Your task to perform on an android device: Search for vegetarian restaurants on Maps Image 0: 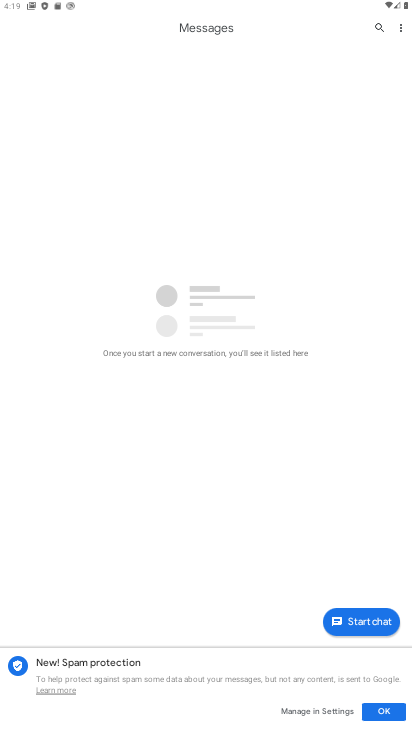
Step 0: press home button
Your task to perform on an android device: Search for vegetarian restaurants on Maps Image 1: 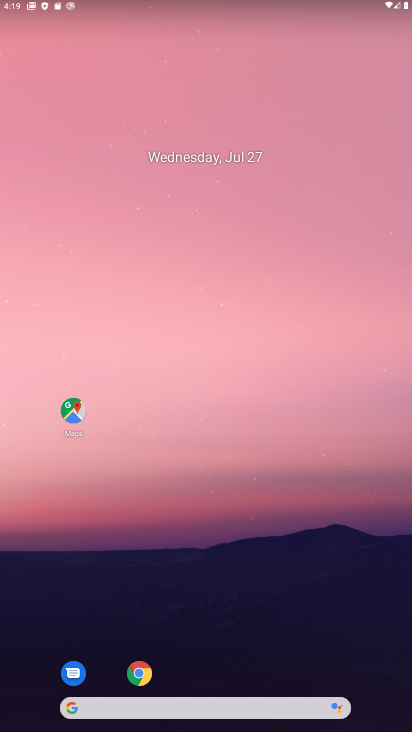
Step 1: click (73, 407)
Your task to perform on an android device: Search for vegetarian restaurants on Maps Image 2: 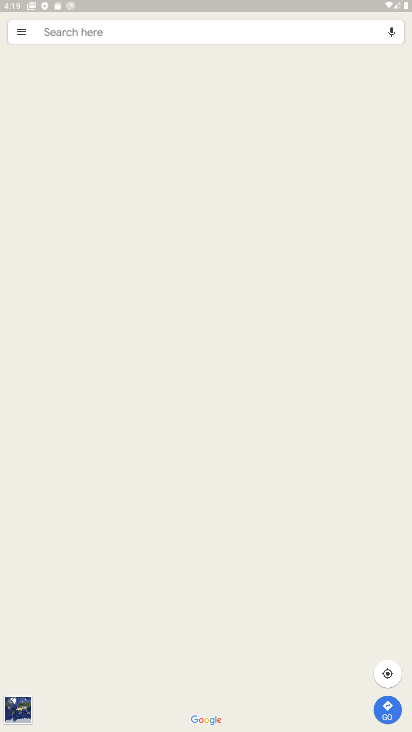
Step 2: click (190, 32)
Your task to perform on an android device: Search for vegetarian restaurants on Maps Image 3: 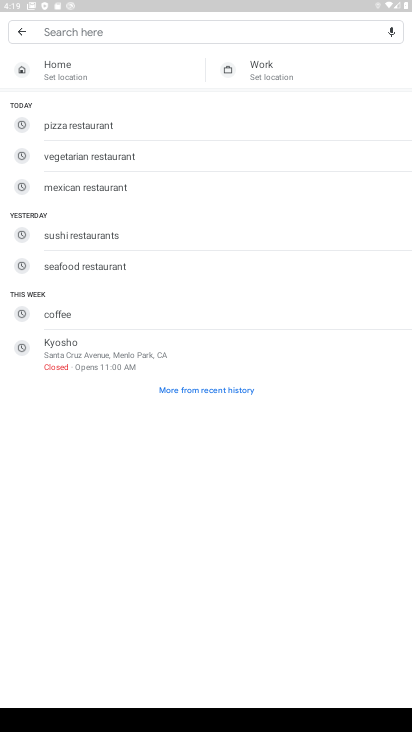
Step 3: type "vegetarian restaurants"
Your task to perform on an android device: Search for vegetarian restaurants on Maps Image 4: 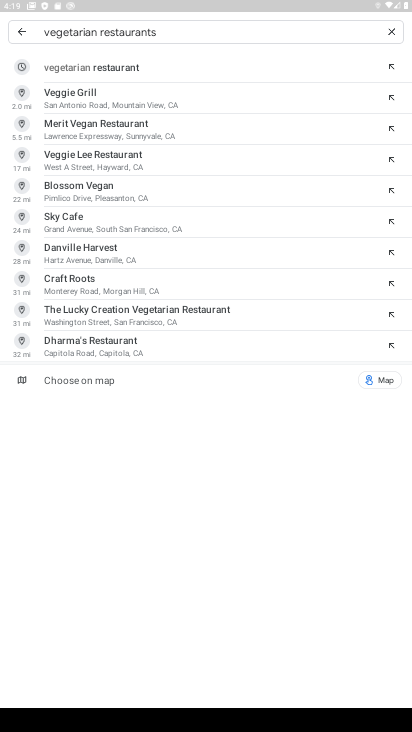
Step 4: click (125, 67)
Your task to perform on an android device: Search for vegetarian restaurants on Maps Image 5: 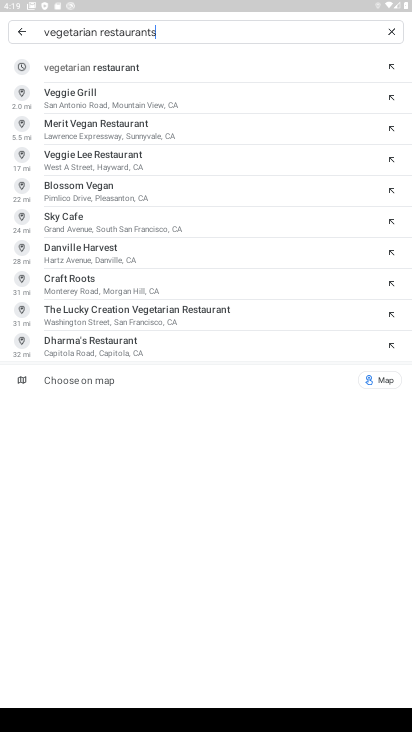
Step 5: click (125, 67)
Your task to perform on an android device: Search for vegetarian restaurants on Maps Image 6: 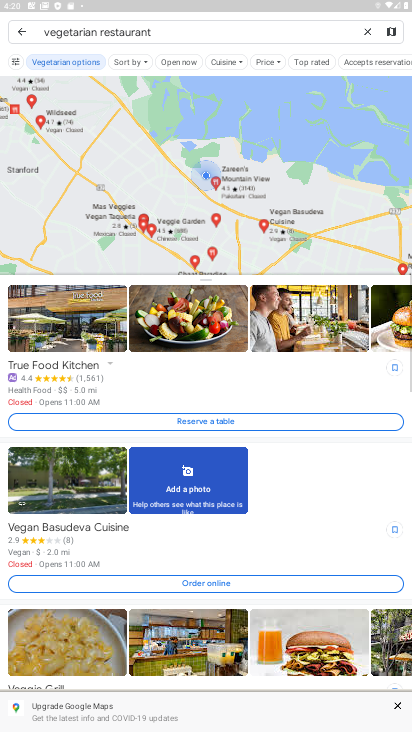
Step 6: task complete